Your task to perform on an android device: toggle location history Image 0: 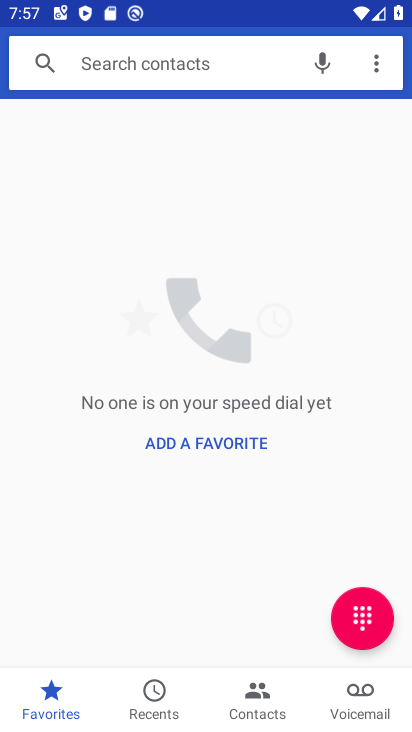
Step 0: press home button
Your task to perform on an android device: toggle location history Image 1: 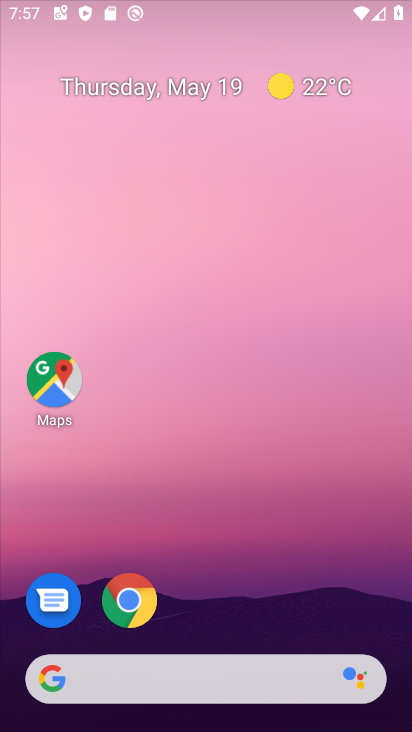
Step 1: drag from (316, 553) to (308, 215)
Your task to perform on an android device: toggle location history Image 2: 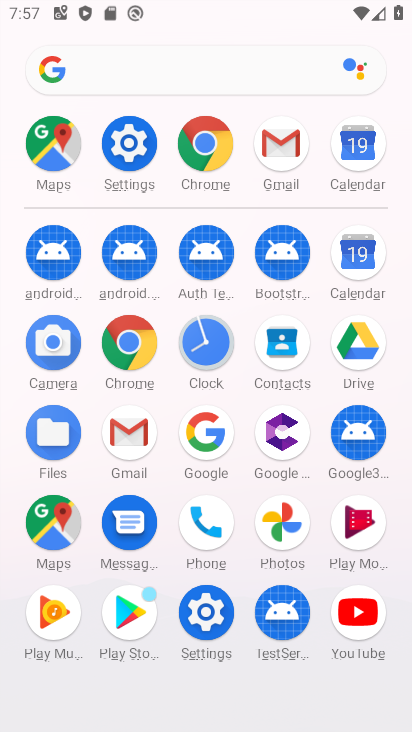
Step 2: click (134, 148)
Your task to perform on an android device: toggle location history Image 3: 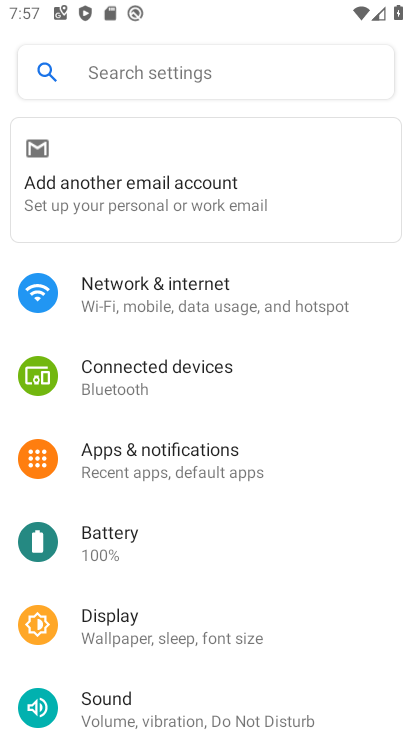
Step 3: drag from (163, 583) to (205, 240)
Your task to perform on an android device: toggle location history Image 4: 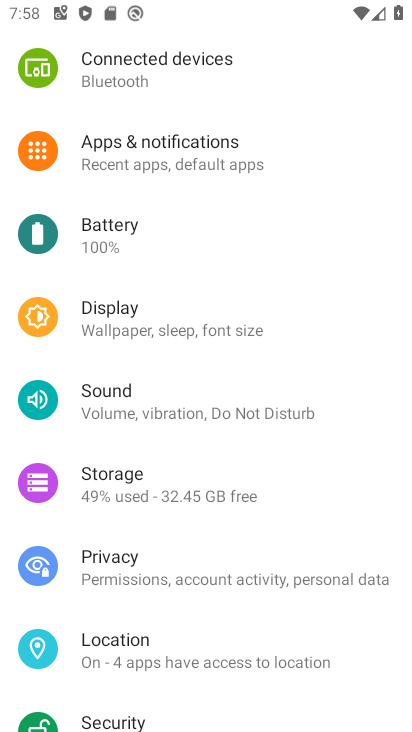
Step 4: click (149, 663)
Your task to perform on an android device: toggle location history Image 5: 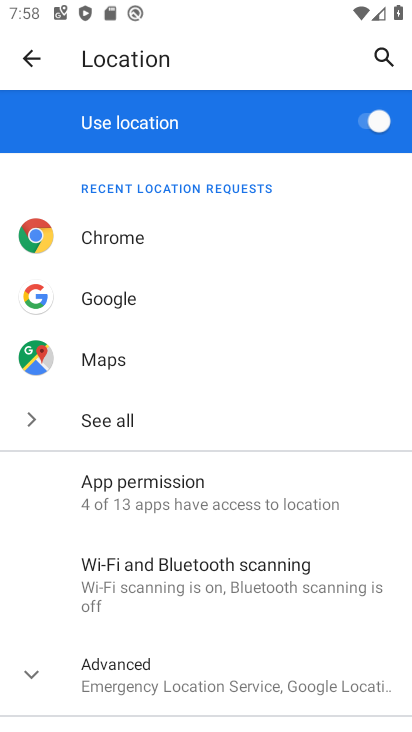
Step 5: drag from (261, 612) to (261, 299)
Your task to perform on an android device: toggle location history Image 6: 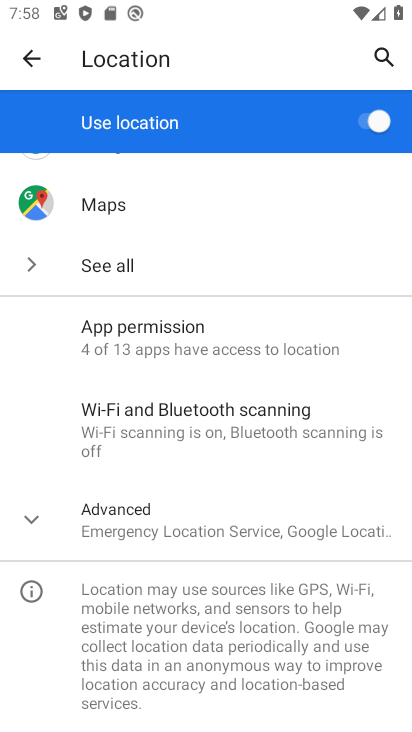
Step 6: click (216, 521)
Your task to perform on an android device: toggle location history Image 7: 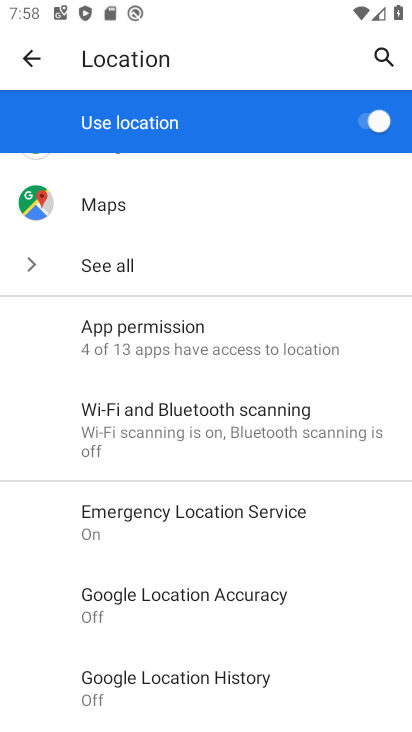
Step 7: click (210, 669)
Your task to perform on an android device: toggle location history Image 8: 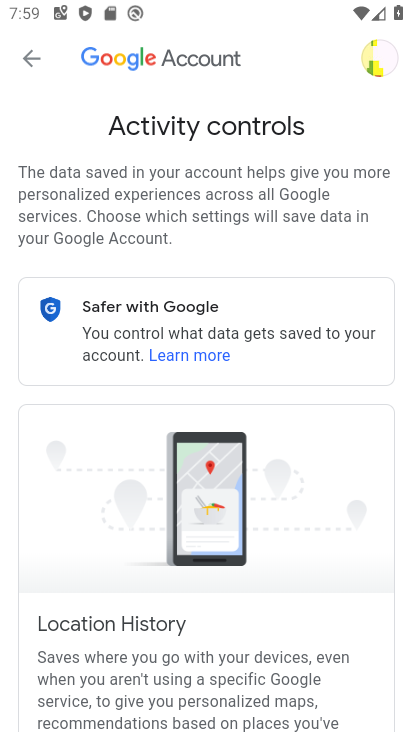
Step 8: drag from (327, 660) to (334, 309)
Your task to perform on an android device: toggle location history Image 9: 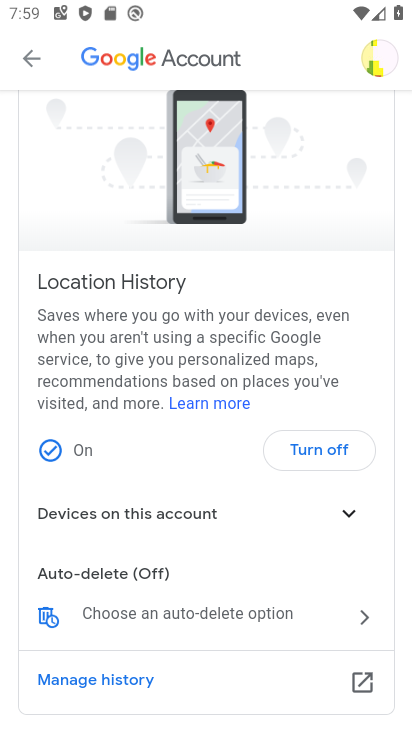
Step 9: click (202, 681)
Your task to perform on an android device: toggle location history Image 10: 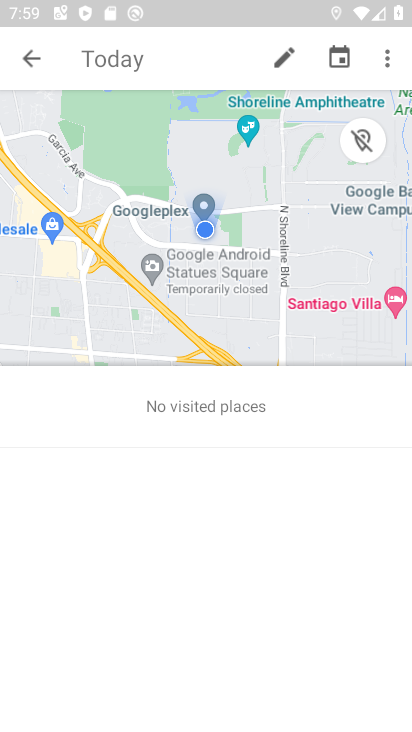
Step 10: click (387, 61)
Your task to perform on an android device: toggle location history Image 11: 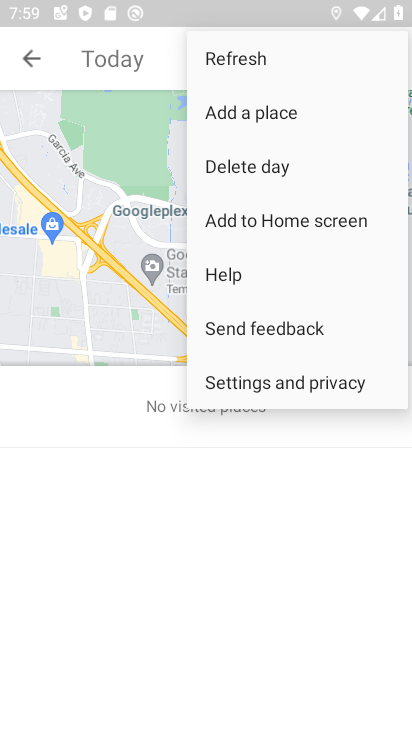
Step 11: click (275, 383)
Your task to perform on an android device: toggle location history Image 12: 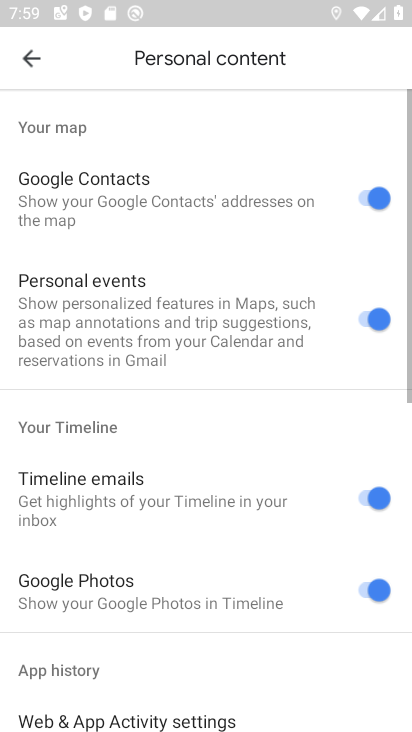
Step 12: drag from (234, 662) to (232, 205)
Your task to perform on an android device: toggle location history Image 13: 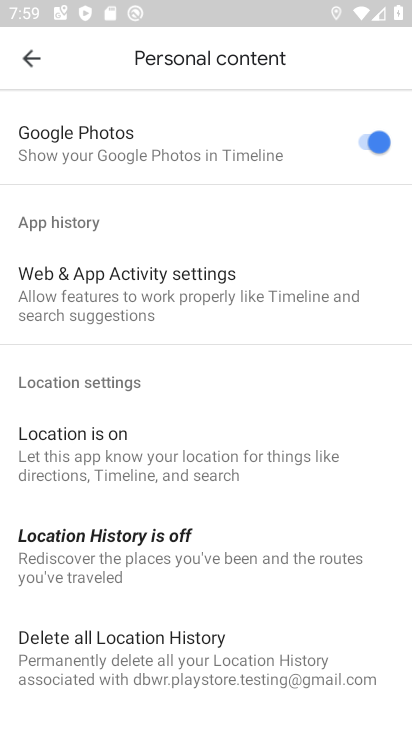
Step 13: click (146, 451)
Your task to perform on an android device: toggle location history Image 14: 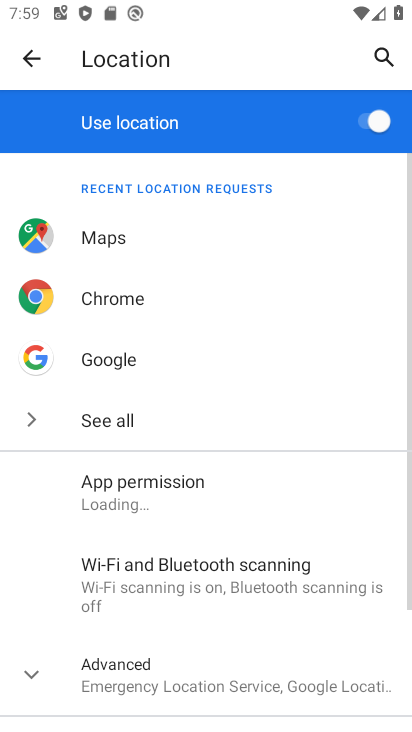
Step 14: click (369, 108)
Your task to perform on an android device: toggle location history Image 15: 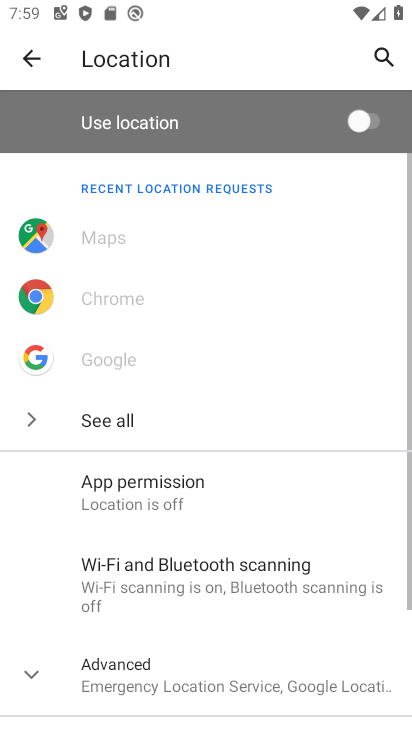
Step 15: task complete